Your task to perform on an android device: Open Google Chrome and open the bookmarks view Image 0: 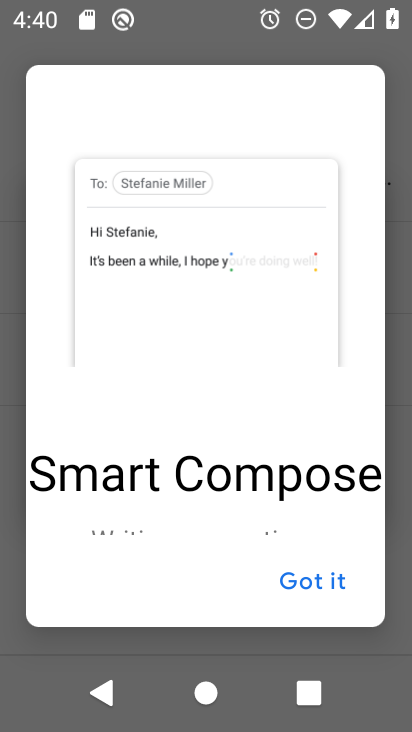
Step 0: press home button
Your task to perform on an android device: Open Google Chrome and open the bookmarks view Image 1: 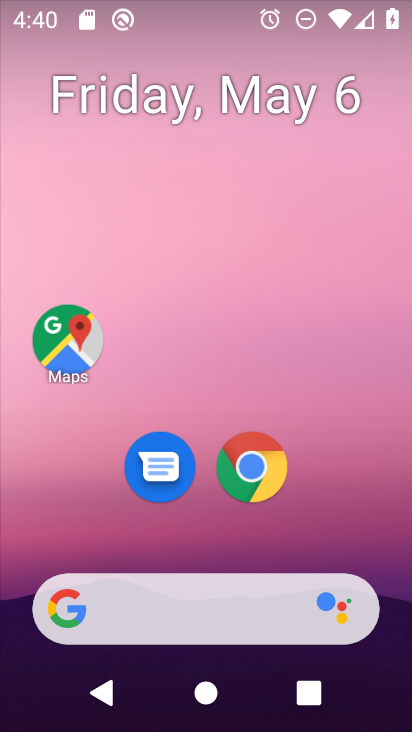
Step 1: drag from (318, 539) to (284, 273)
Your task to perform on an android device: Open Google Chrome and open the bookmarks view Image 2: 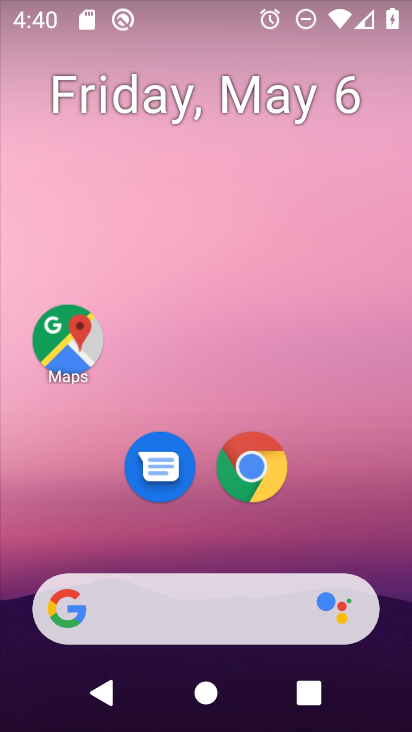
Step 2: click (255, 447)
Your task to perform on an android device: Open Google Chrome and open the bookmarks view Image 3: 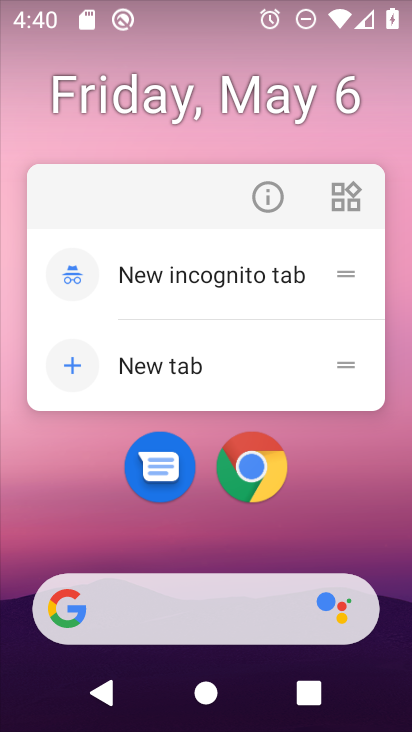
Step 3: click (287, 478)
Your task to perform on an android device: Open Google Chrome and open the bookmarks view Image 4: 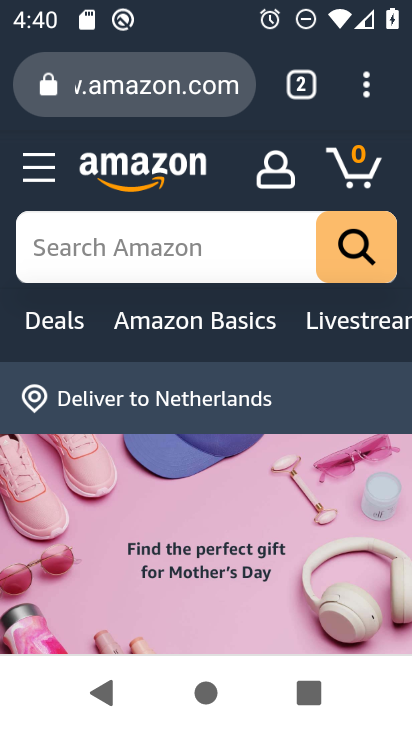
Step 4: click (373, 83)
Your task to perform on an android device: Open Google Chrome and open the bookmarks view Image 5: 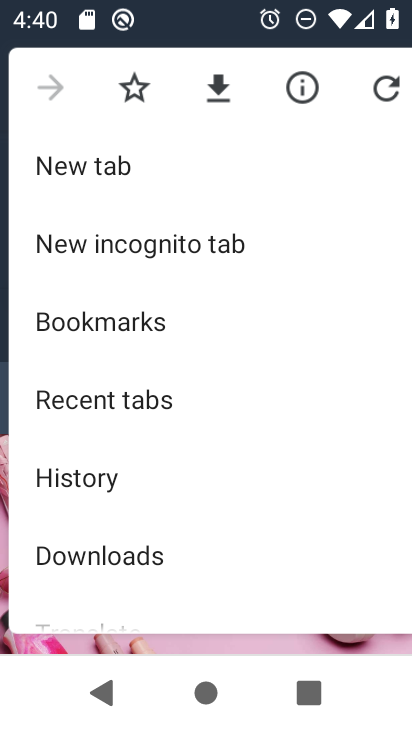
Step 5: click (135, 324)
Your task to perform on an android device: Open Google Chrome and open the bookmarks view Image 6: 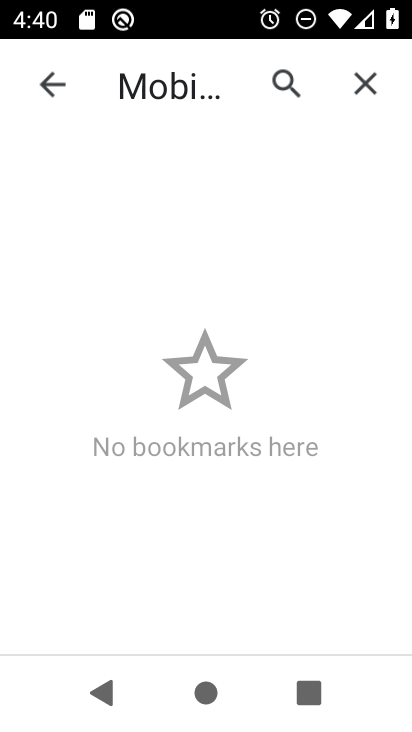
Step 6: task complete